Your task to perform on an android device: turn off location Image 0: 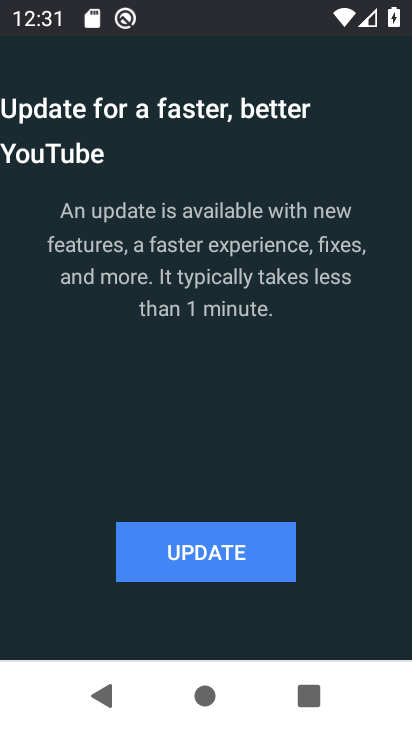
Step 0: press home button
Your task to perform on an android device: turn off location Image 1: 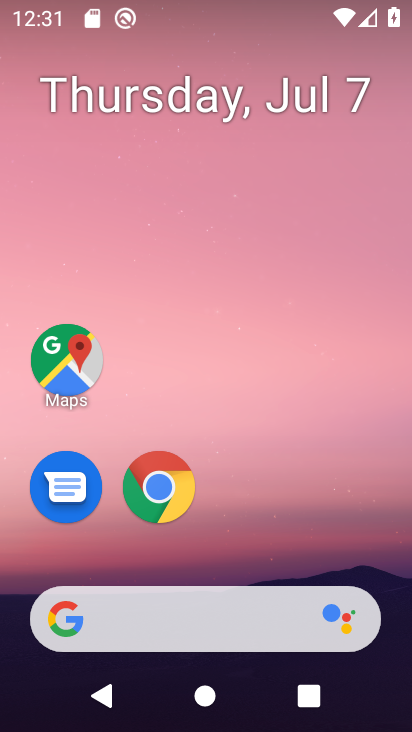
Step 1: drag from (328, 523) to (330, 70)
Your task to perform on an android device: turn off location Image 2: 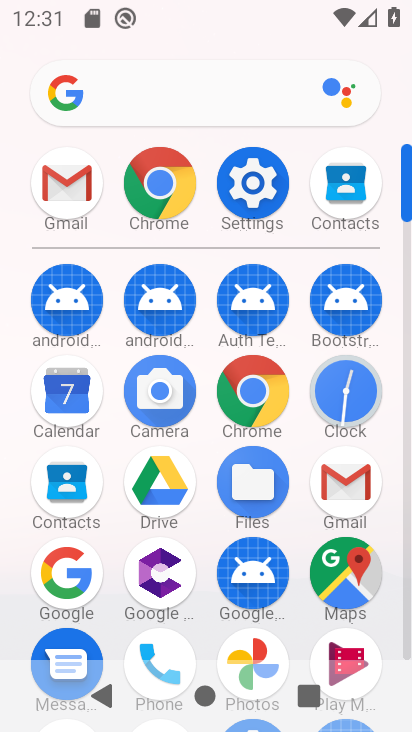
Step 2: click (254, 186)
Your task to perform on an android device: turn off location Image 3: 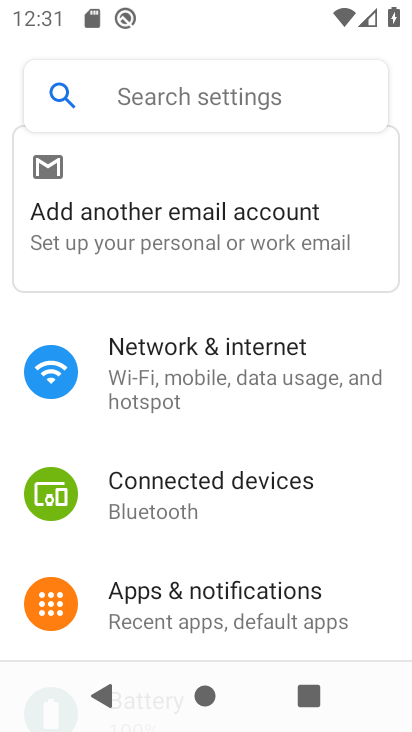
Step 3: drag from (366, 490) to (364, 360)
Your task to perform on an android device: turn off location Image 4: 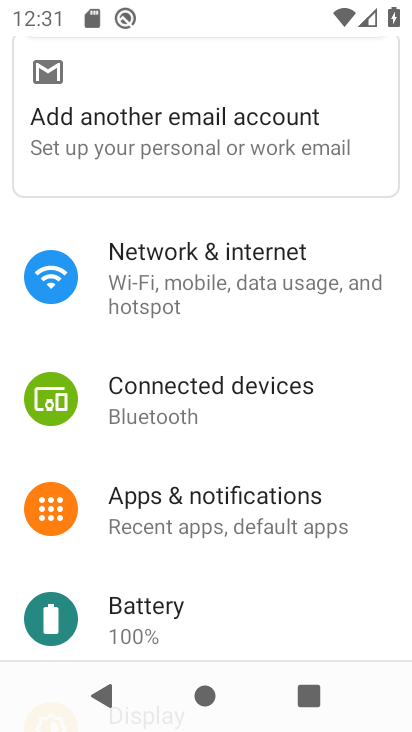
Step 4: drag from (366, 543) to (367, 397)
Your task to perform on an android device: turn off location Image 5: 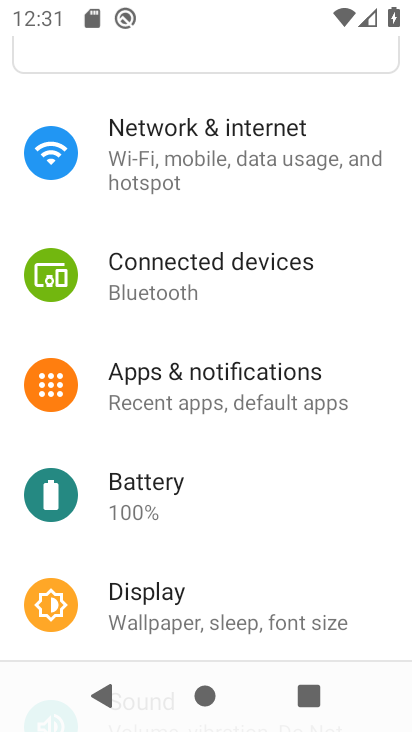
Step 5: drag from (364, 558) to (358, 390)
Your task to perform on an android device: turn off location Image 6: 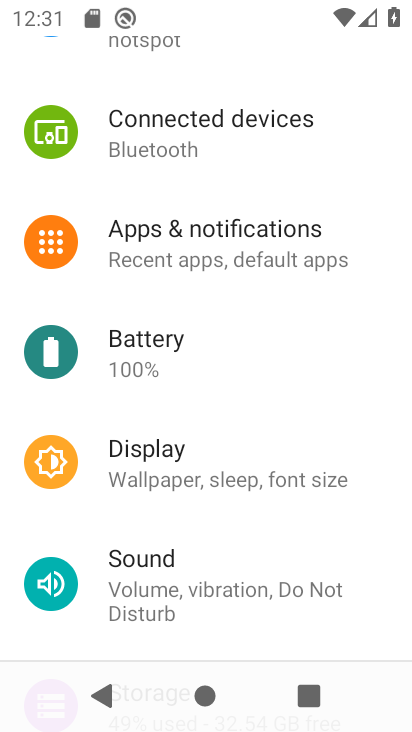
Step 6: drag from (365, 561) to (370, 394)
Your task to perform on an android device: turn off location Image 7: 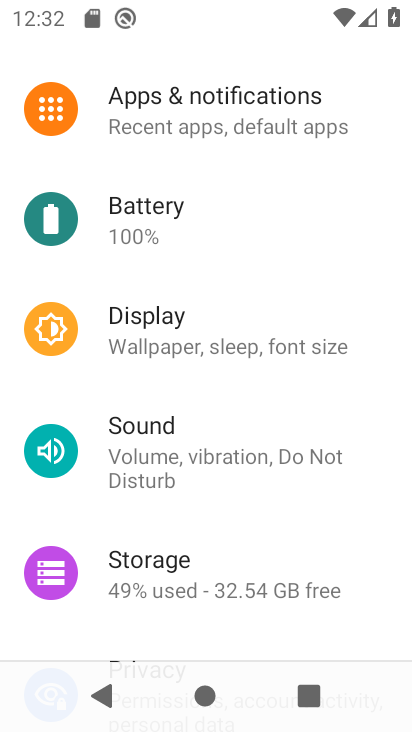
Step 7: drag from (370, 541) to (367, 404)
Your task to perform on an android device: turn off location Image 8: 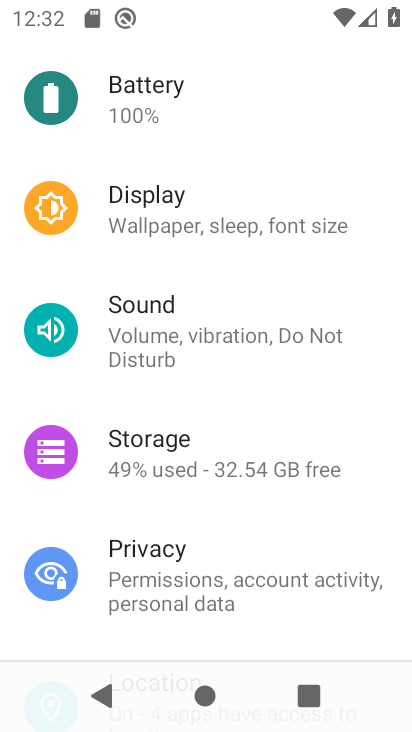
Step 8: drag from (367, 604) to (368, 459)
Your task to perform on an android device: turn off location Image 9: 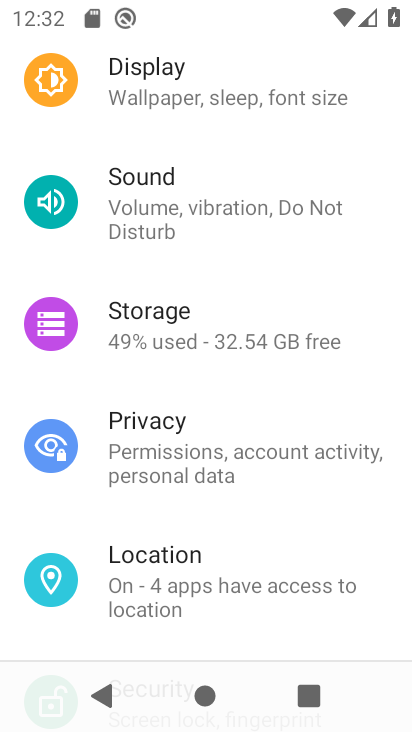
Step 9: drag from (380, 586) to (371, 455)
Your task to perform on an android device: turn off location Image 10: 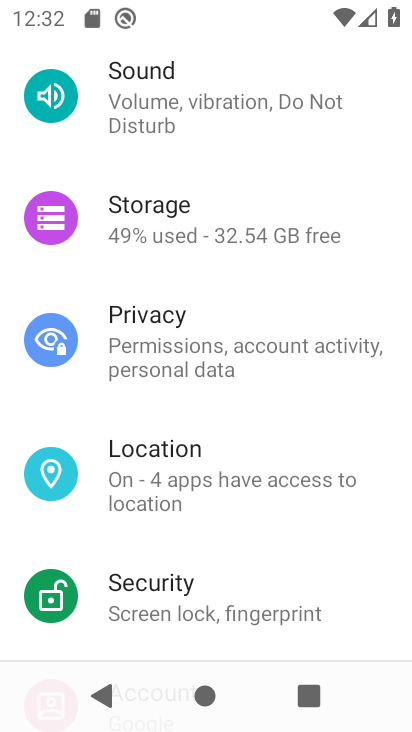
Step 10: click (235, 477)
Your task to perform on an android device: turn off location Image 11: 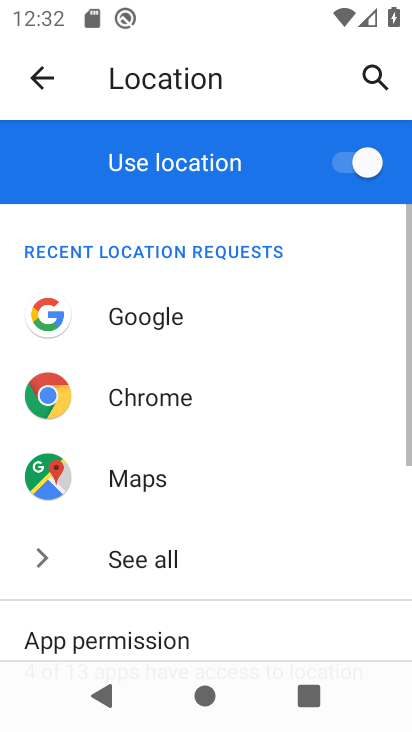
Step 11: click (356, 153)
Your task to perform on an android device: turn off location Image 12: 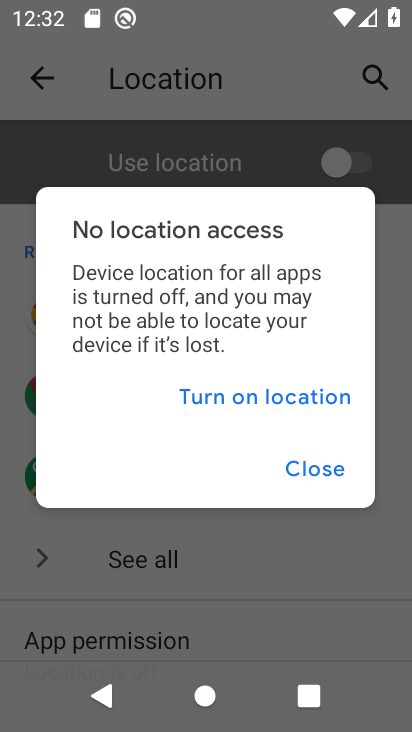
Step 12: click (303, 478)
Your task to perform on an android device: turn off location Image 13: 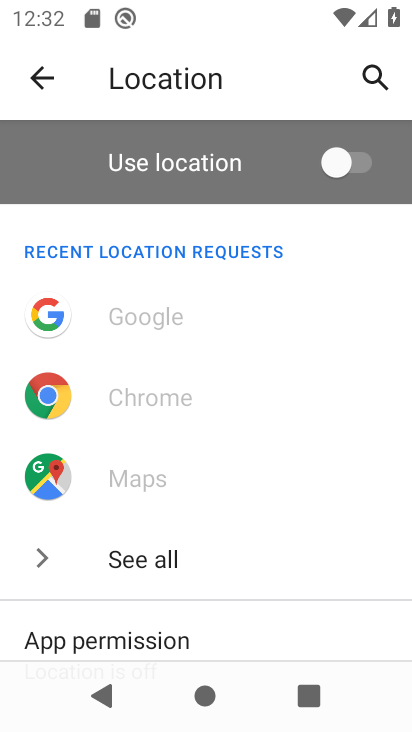
Step 13: task complete